Your task to perform on an android device: allow notifications from all sites in the chrome app Image 0: 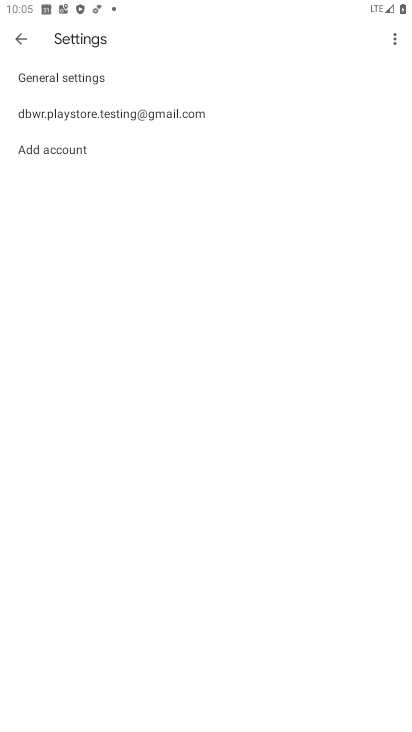
Step 0: click (17, 43)
Your task to perform on an android device: allow notifications from all sites in the chrome app Image 1: 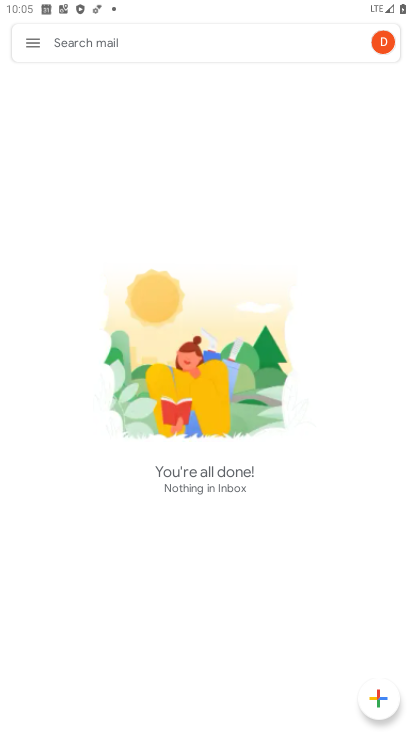
Step 1: press home button
Your task to perform on an android device: allow notifications from all sites in the chrome app Image 2: 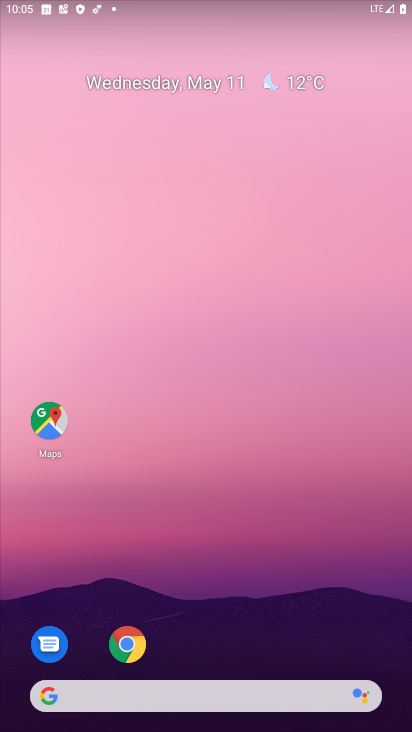
Step 2: click (109, 638)
Your task to perform on an android device: allow notifications from all sites in the chrome app Image 3: 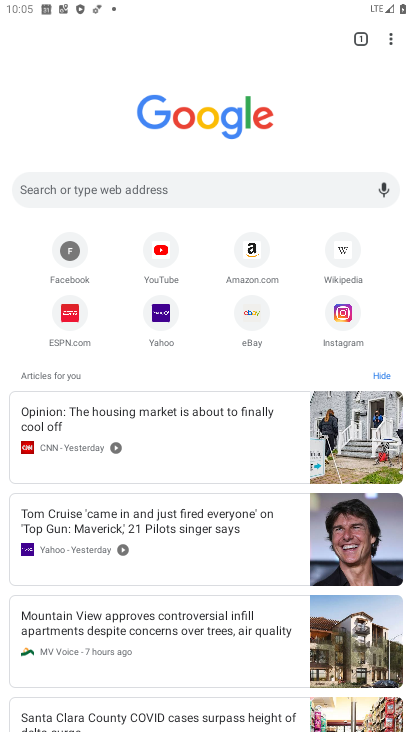
Step 3: click (390, 51)
Your task to perform on an android device: allow notifications from all sites in the chrome app Image 4: 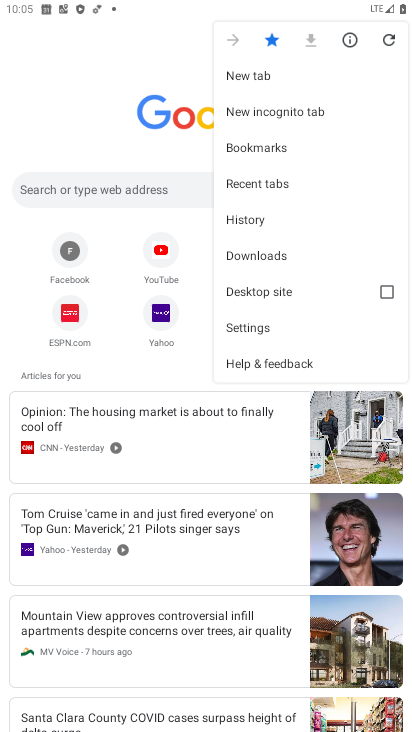
Step 4: click (257, 337)
Your task to perform on an android device: allow notifications from all sites in the chrome app Image 5: 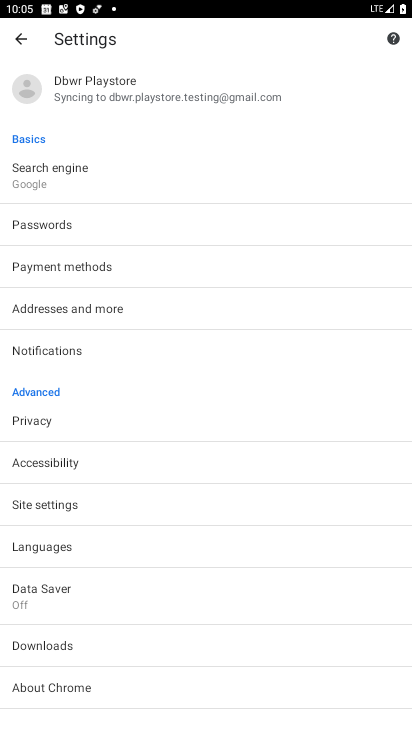
Step 5: click (172, 492)
Your task to perform on an android device: allow notifications from all sites in the chrome app Image 6: 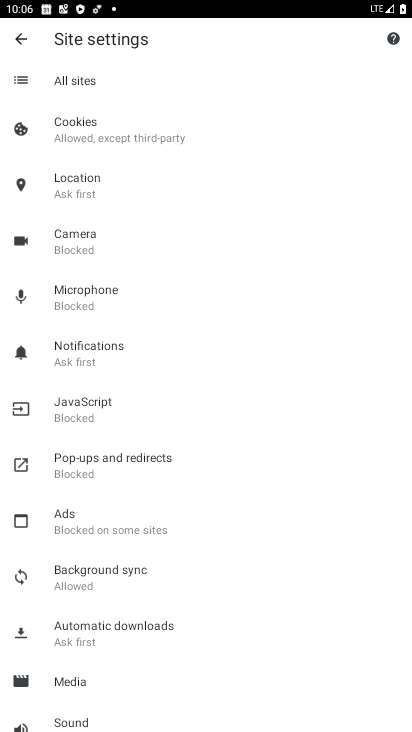
Step 6: task complete